Your task to perform on an android device: open sync settings in chrome Image 0: 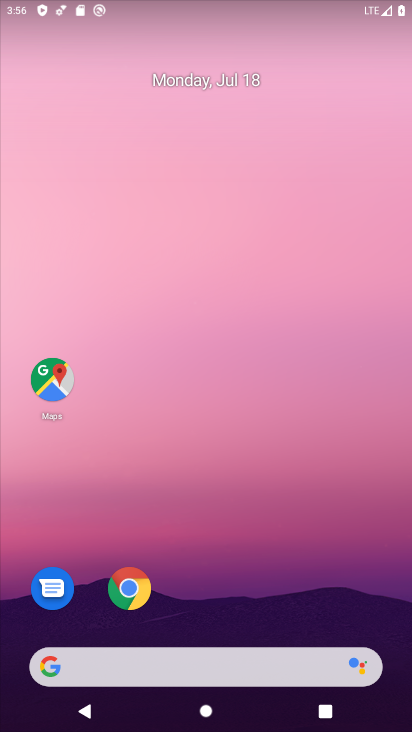
Step 0: drag from (188, 625) to (262, 230)
Your task to perform on an android device: open sync settings in chrome Image 1: 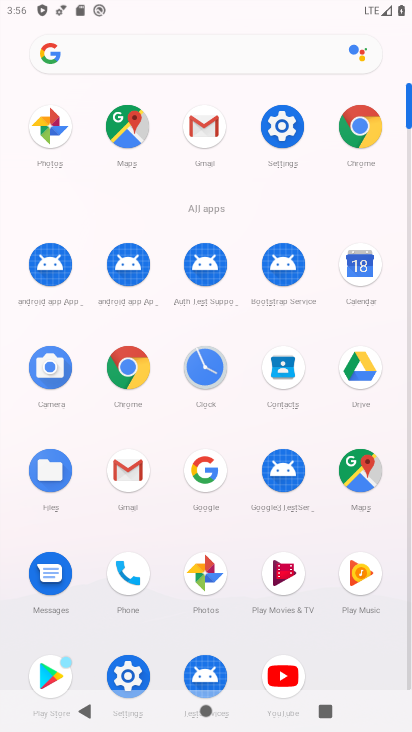
Step 1: click (117, 374)
Your task to perform on an android device: open sync settings in chrome Image 2: 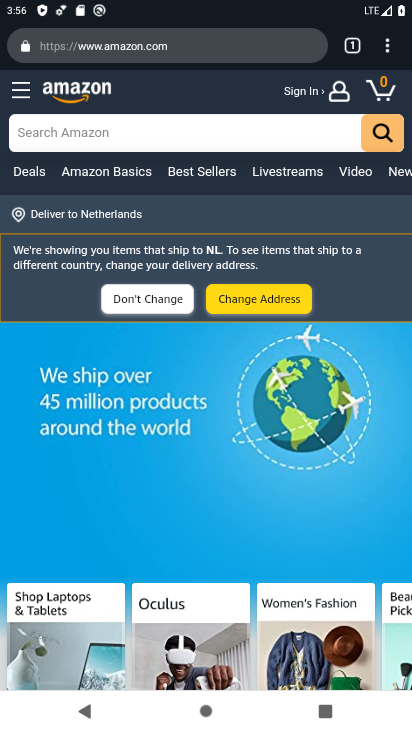
Step 2: click (403, 41)
Your task to perform on an android device: open sync settings in chrome Image 3: 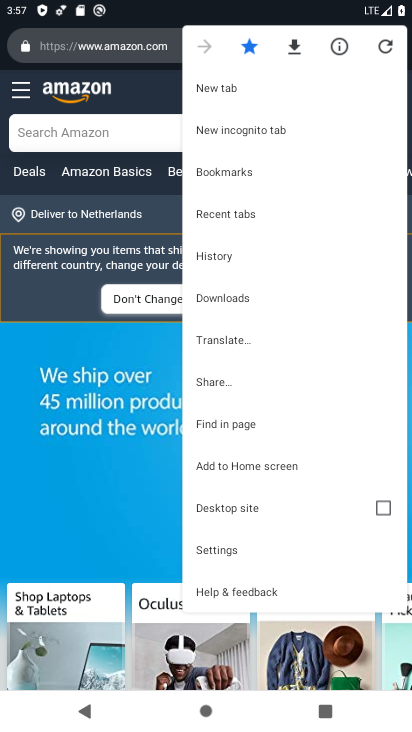
Step 3: click (244, 542)
Your task to perform on an android device: open sync settings in chrome Image 4: 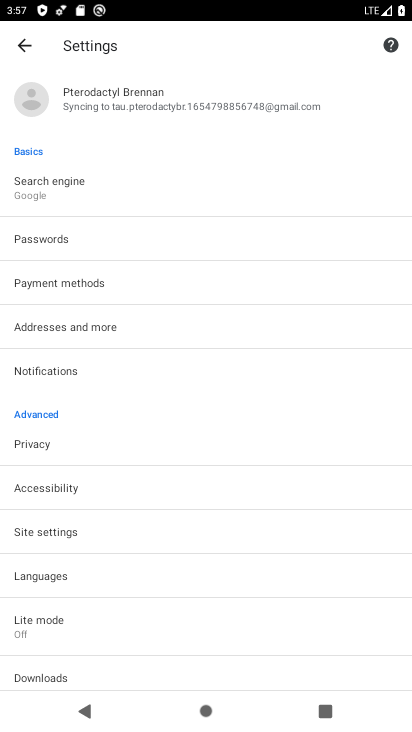
Step 4: click (202, 115)
Your task to perform on an android device: open sync settings in chrome Image 5: 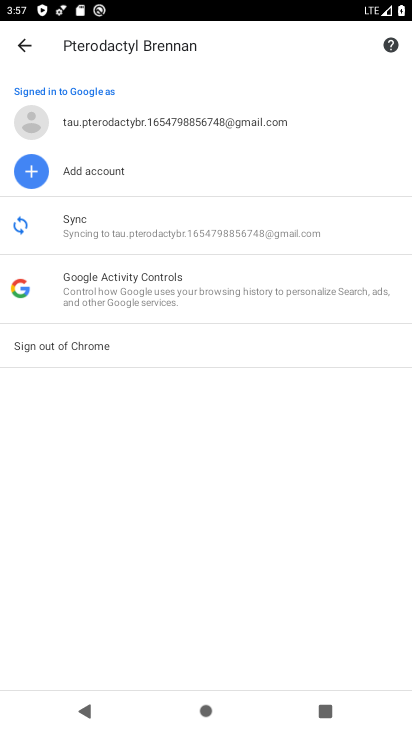
Step 5: click (108, 217)
Your task to perform on an android device: open sync settings in chrome Image 6: 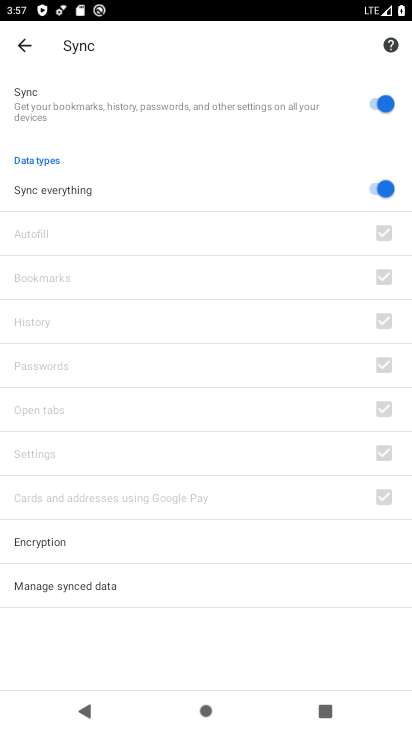
Step 6: task complete